Your task to perform on an android device: Look up the best rated coffee maker on Lowe's. Image 0: 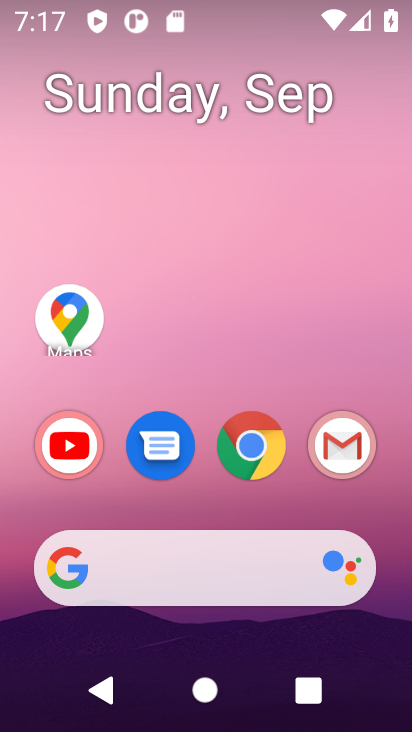
Step 0: drag from (114, 666) to (235, 80)
Your task to perform on an android device: Look up the best rated coffee maker on Lowe's. Image 1: 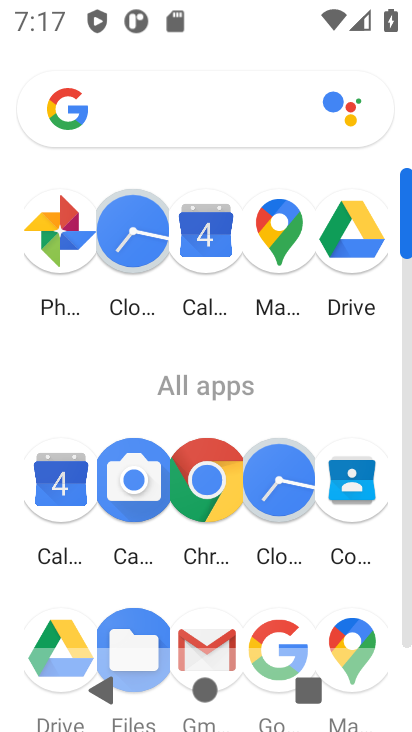
Step 1: click (208, 499)
Your task to perform on an android device: Look up the best rated coffee maker on Lowe's. Image 2: 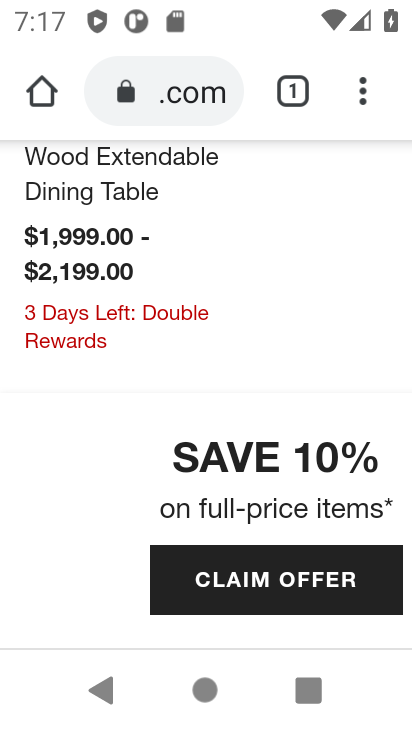
Step 2: click (174, 103)
Your task to perform on an android device: Look up the best rated coffee maker on Lowe's. Image 3: 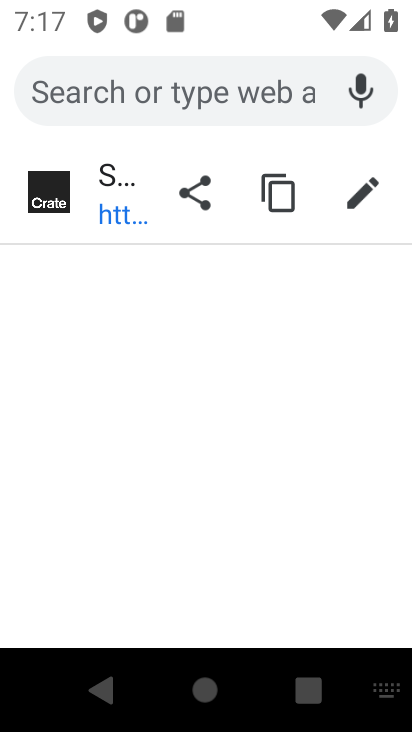
Step 3: type "Lowe's."
Your task to perform on an android device: Look up the best rated coffee maker on Lowe's. Image 4: 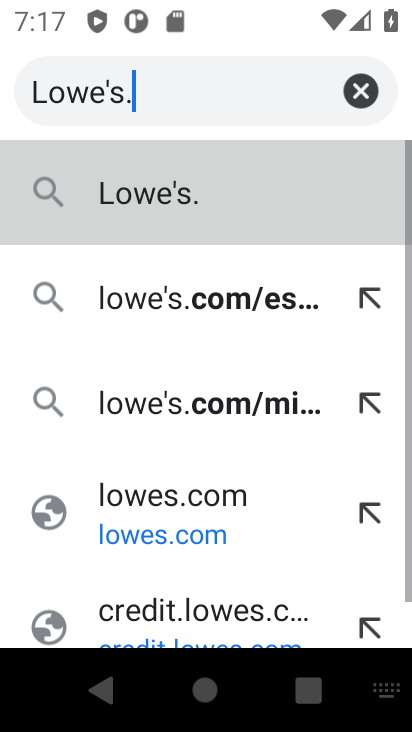
Step 4: press enter
Your task to perform on an android device: Look up the best rated coffee maker on Lowe's. Image 5: 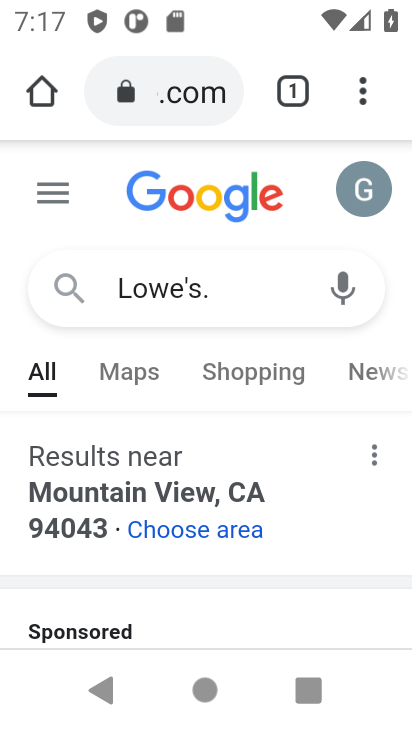
Step 5: drag from (192, 521) to (287, 202)
Your task to perform on an android device: Look up the best rated coffee maker on Lowe's. Image 6: 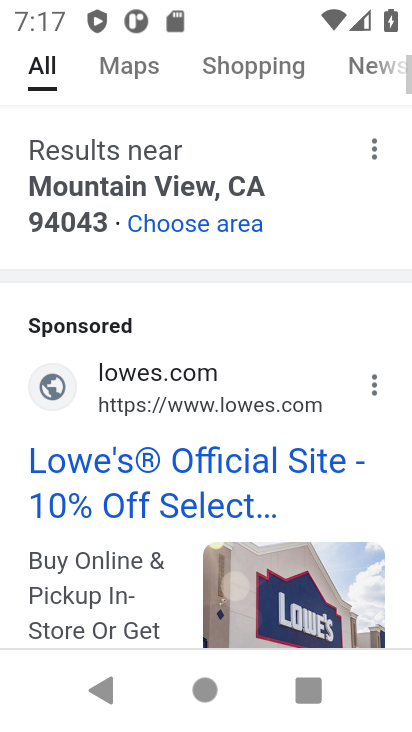
Step 6: click (126, 496)
Your task to perform on an android device: Look up the best rated coffee maker on Lowe's. Image 7: 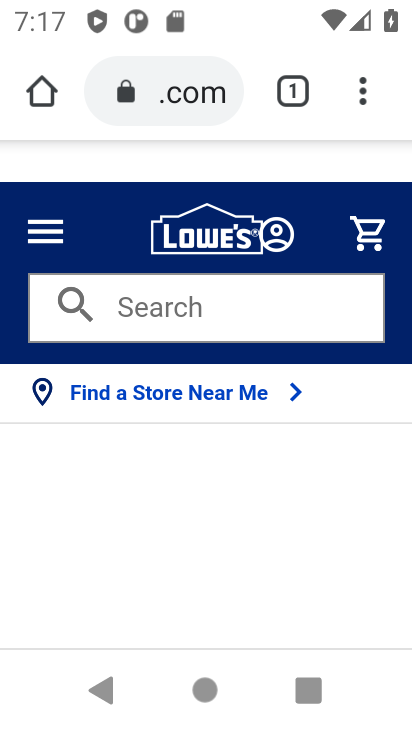
Step 7: click (132, 331)
Your task to perform on an android device: Look up the best rated coffee maker on Lowe's. Image 8: 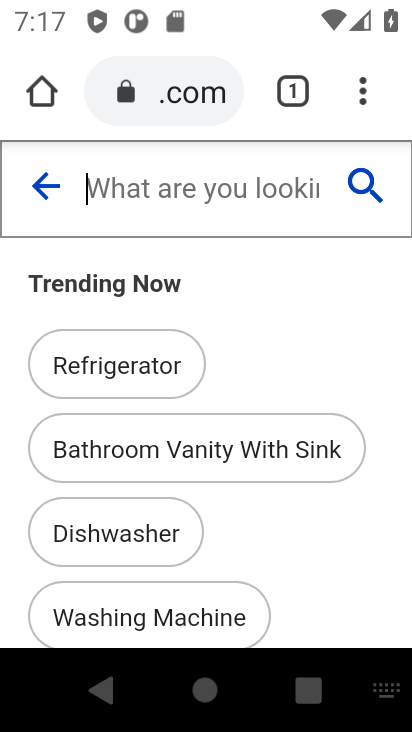
Step 8: type " best rated coffee maker "
Your task to perform on an android device: Look up the best rated coffee maker on Lowe's. Image 9: 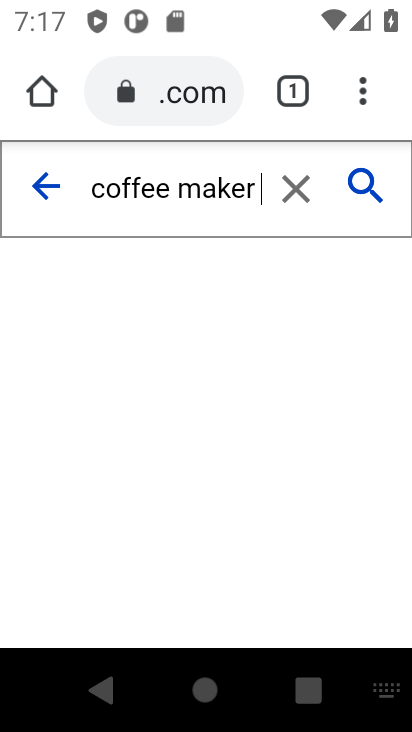
Step 9: press enter
Your task to perform on an android device: Look up the best rated coffee maker on Lowe's. Image 10: 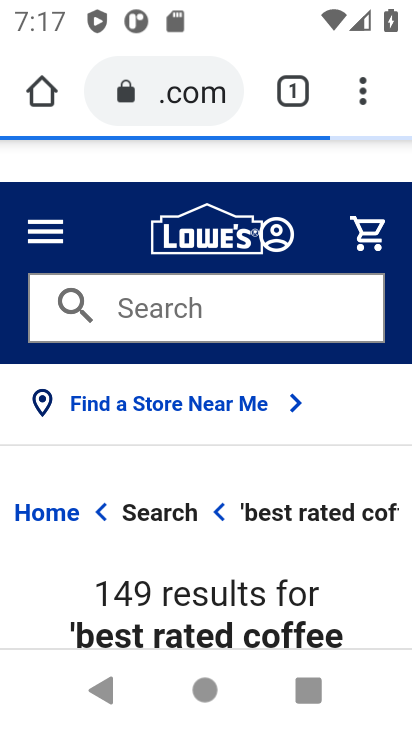
Step 10: task complete